Your task to perform on an android device: Show me the alarms in the clock app Image 0: 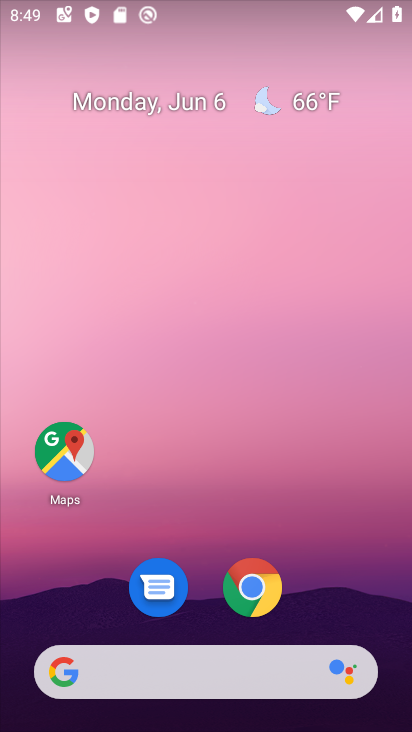
Step 0: drag from (186, 660) to (201, 160)
Your task to perform on an android device: Show me the alarms in the clock app Image 1: 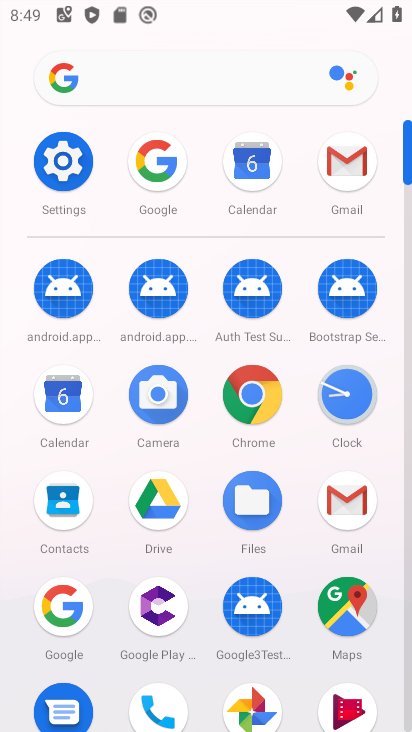
Step 1: click (336, 399)
Your task to perform on an android device: Show me the alarms in the clock app Image 2: 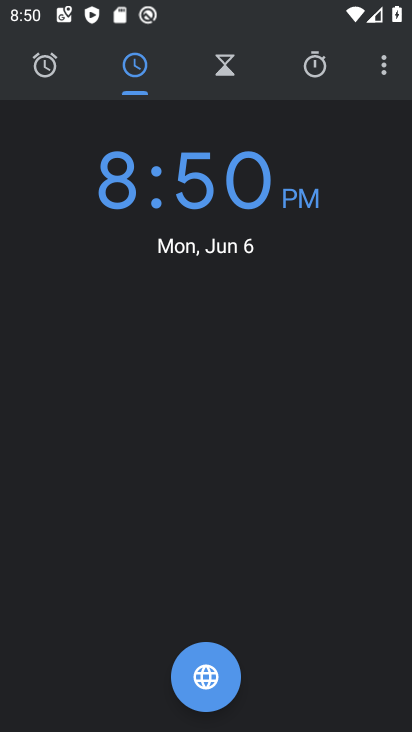
Step 2: click (51, 73)
Your task to perform on an android device: Show me the alarms in the clock app Image 3: 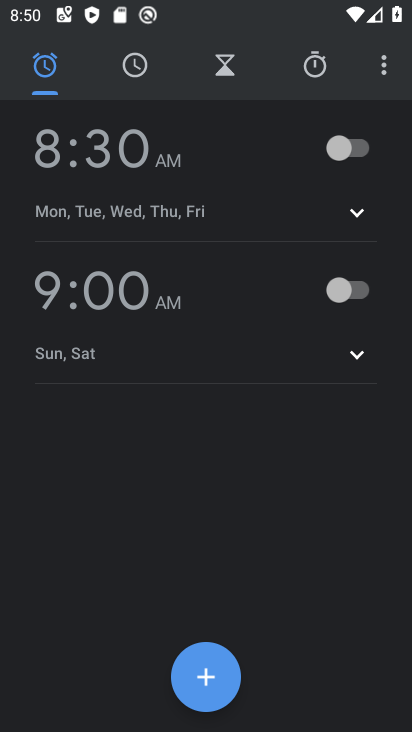
Step 3: task complete